Your task to perform on an android device: Open eBay Image 0: 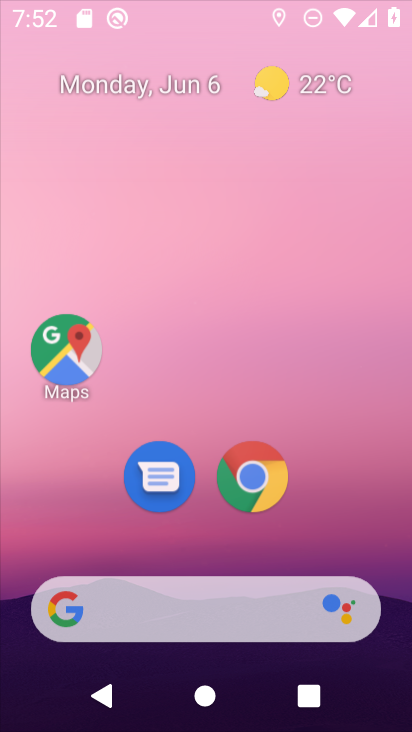
Step 0: click (277, 52)
Your task to perform on an android device: Open eBay Image 1: 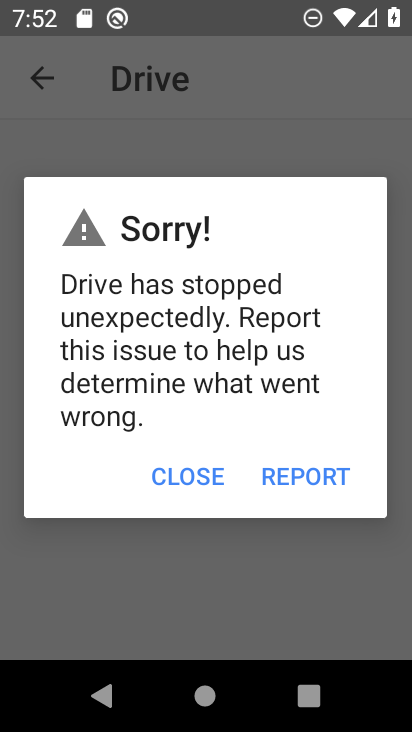
Step 1: press home button
Your task to perform on an android device: Open eBay Image 2: 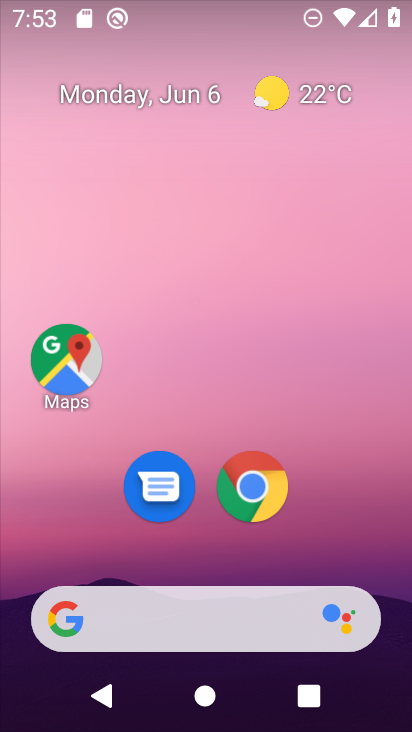
Step 2: drag from (400, 634) to (259, 94)
Your task to perform on an android device: Open eBay Image 3: 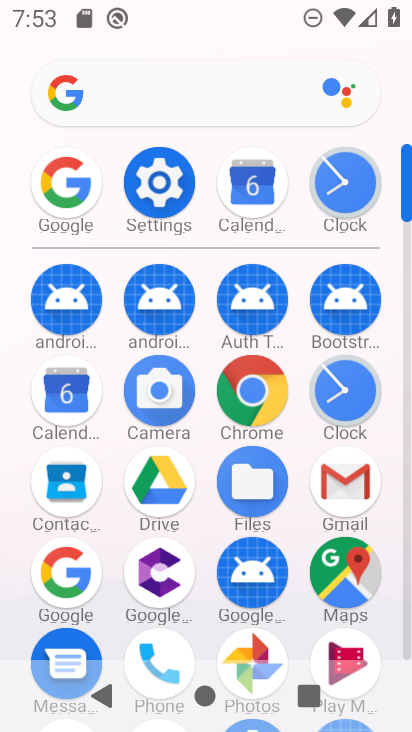
Step 3: click (63, 590)
Your task to perform on an android device: Open eBay Image 4: 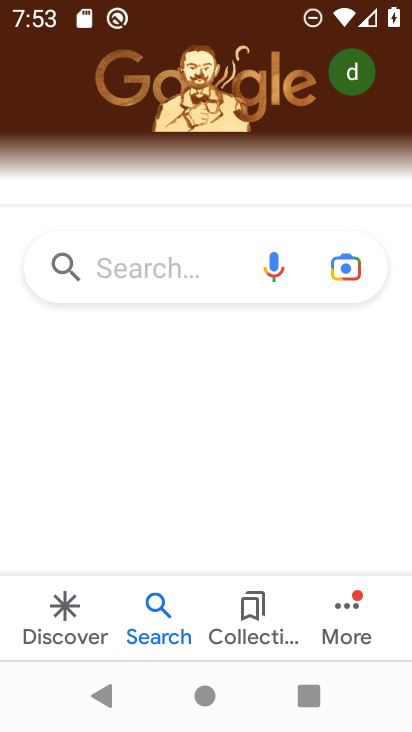
Step 4: click (137, 278)
Your task to perform on an android device: Open eBay Image 5: 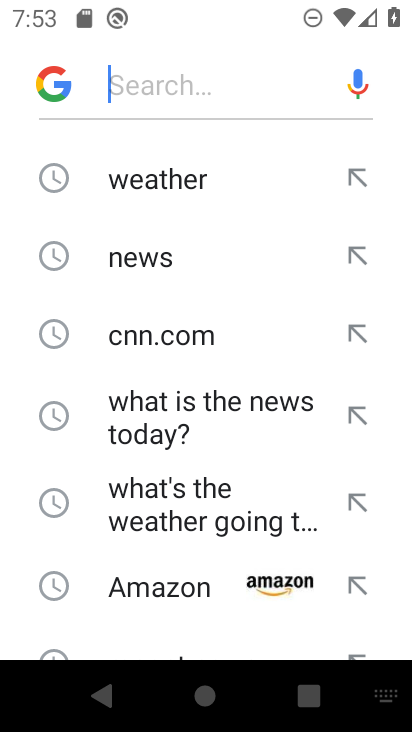
Step 5: drag from (168, 564) to (228, 131)
Your task to perform on an android device: Open eBay Image 6: 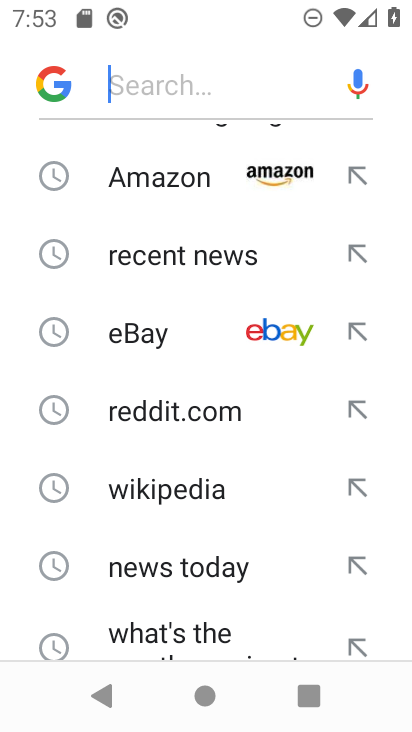
Step 6: click (169, 349)
Your task to perform on an android device: Open eBay Image 7: 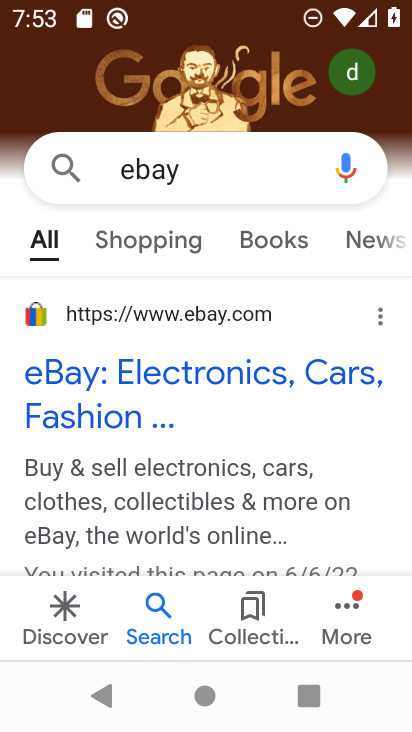
Step 7: task complete